Your task to perform on an android device: open chrome and create a bookmark for the current page Image 0: 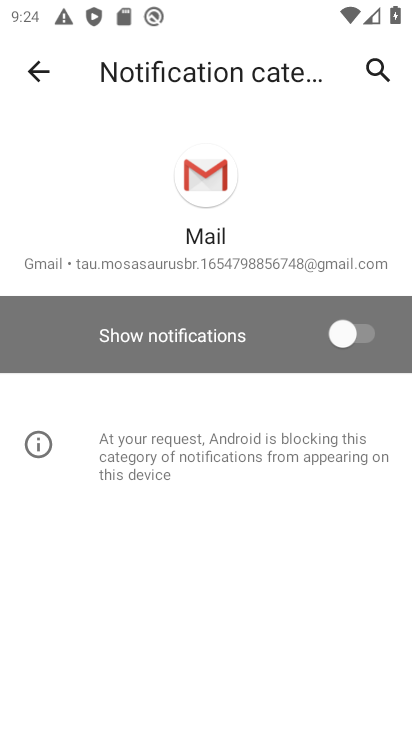
Step 0: press home button
Your task to perform on an android device: open chrome and create a bookmark for the current page Image 1: 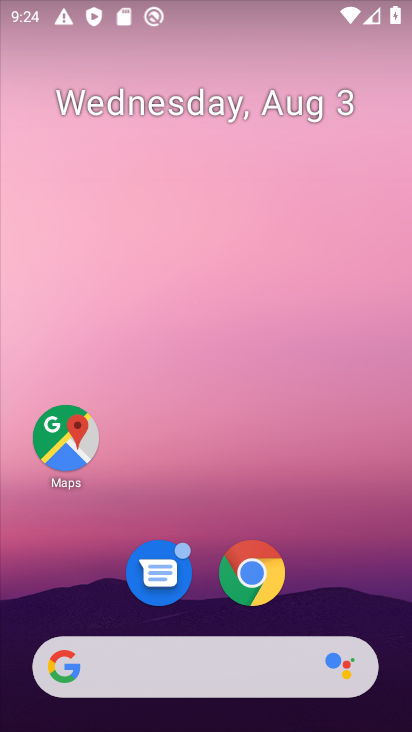
Step 1: click (241, 567)
Your task to perform on an android device: open chrome and create a bookmark for the current page Image 2: 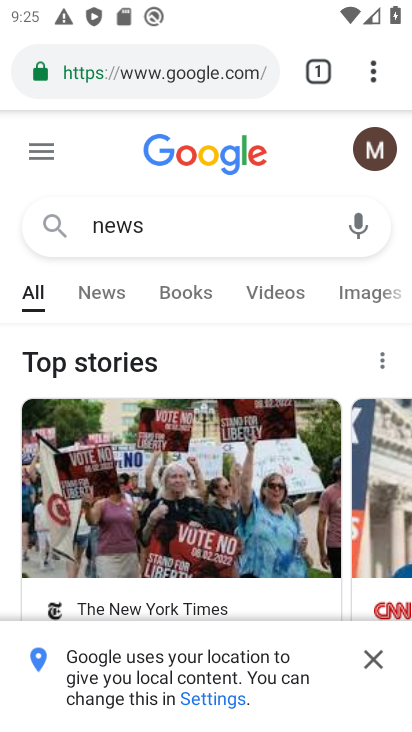
Step 2: task complete